Your task to perform on an android device: turn on showing notifications on the lock screen Image 0: 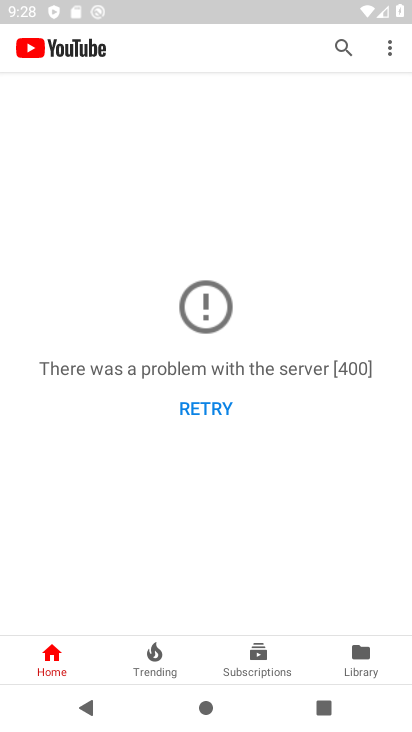
Step 0: press home button
Your task to perform on an android device: turn on showing notifications on the lock screen Image 1: 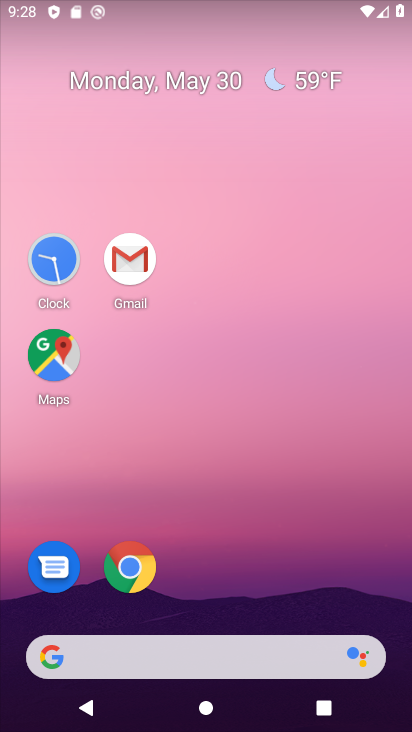
Step 1: drag from (308, 529) to (301, 144)
Your task to perform on an android device: turn on showing notifications on the lock screen Image 2: 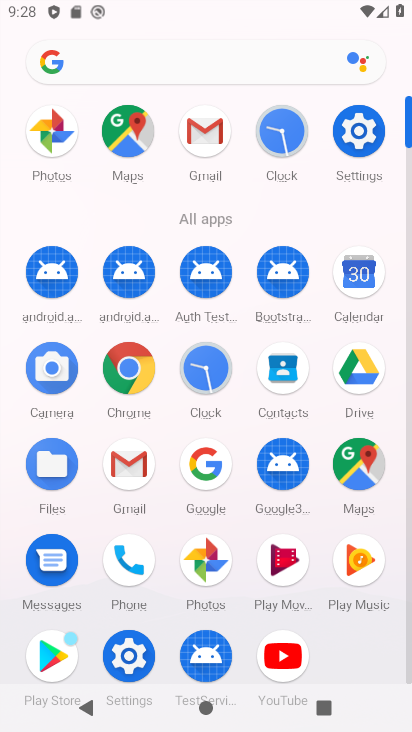
Step 2: drag from (363, 133) to (56, 176)
Your task to perform on an android device: turn on showing notifications on the lock screen Image 3: 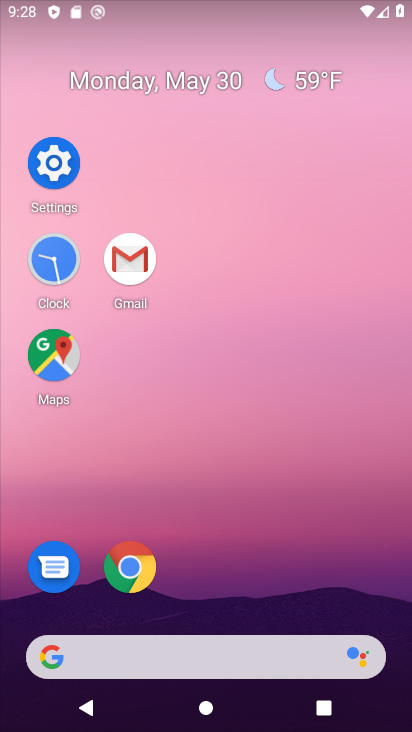
Step 3: click (67, 179)
Your task to perform on an android device: turn on showing notifications on the lock screen Image 4: 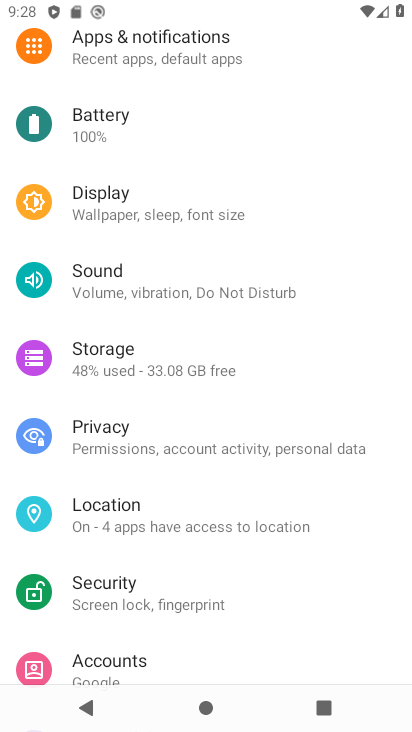
Step 4: click (258, 68)
Your task to perform on an android device: turn on showing notifications on the lock screen Image 5: 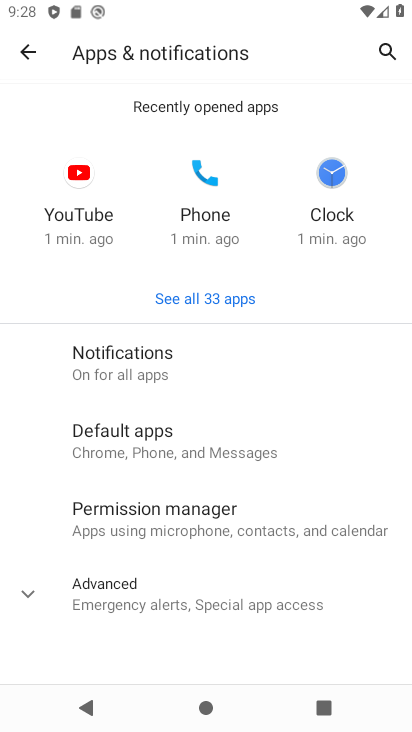
Step 5: click (186, 353)
Your task to perform on an android device: turn on showing notifications on the lock screen Image 6: 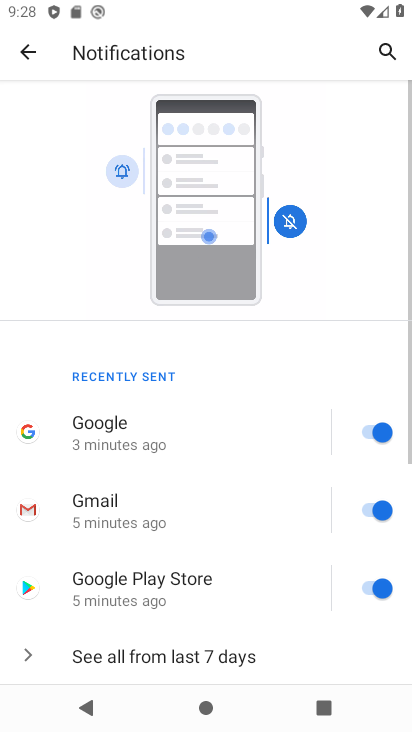
Step 6: drag from (246, 597) to (255, 170)
Your task to perform on an android device: turn on showing notifications on the lock screen Image 7: 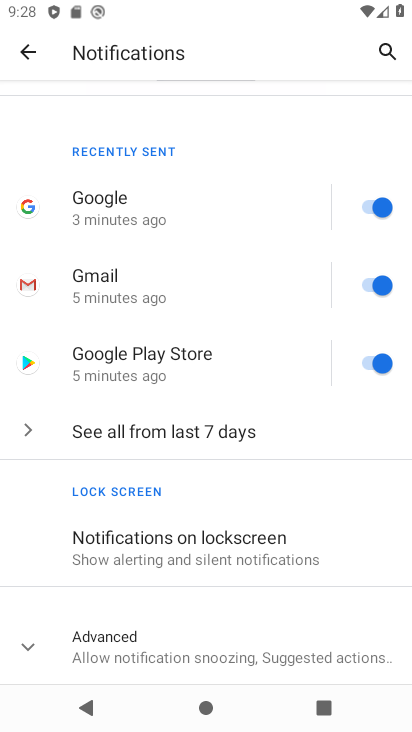
Step 7: click (244, 566)
Your task to perform on an android device: turn on showing notifications on the lock screen Image 8: 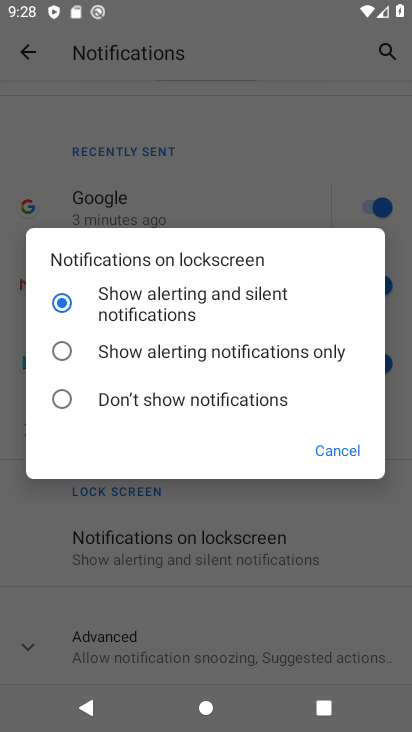
Step 8: task complete